Your task to perform on an android device: Go to Google Image 0: 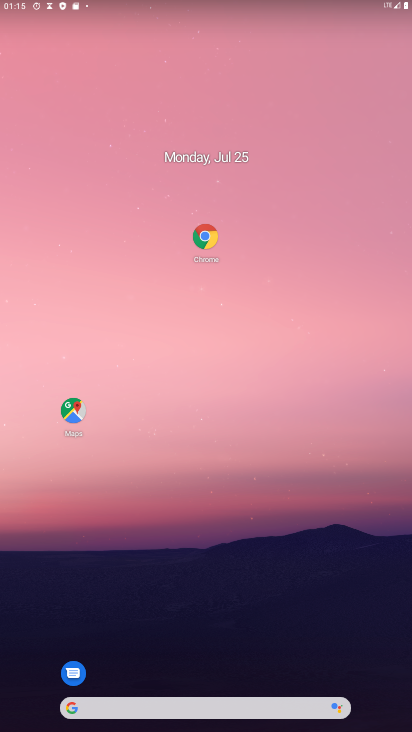
Step 0: drag from (314, 589) to (301, 18)
Your task to perform on an android device: Go to Google Image 1: 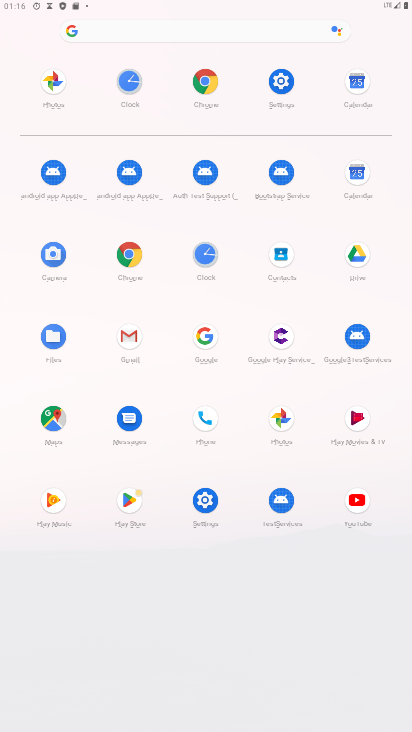
Step 1: click (125, 249)
Your task to perform on an android device: Go to Google Image 2: 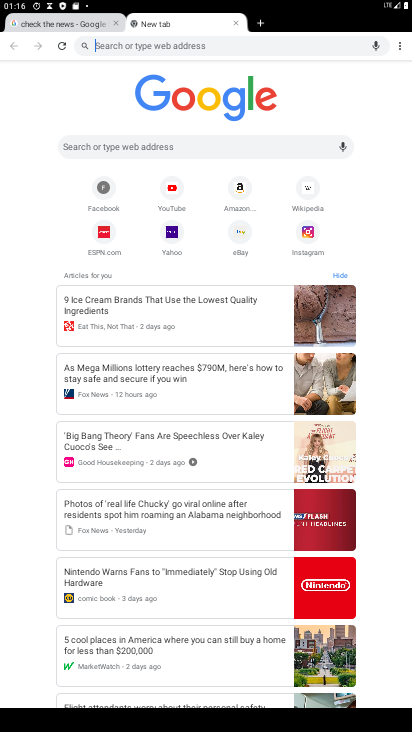
Step 2: task complete